Your task to perform on an android device: see tabs open on other devices in the chrome app Image 0: 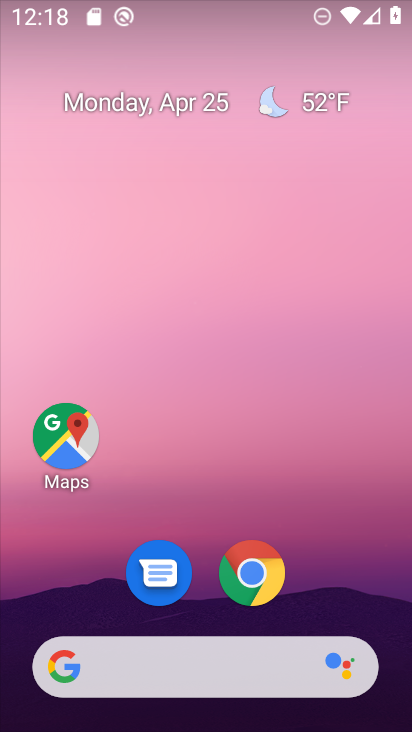
Step 0: click (253, 572)
Your task to perform on an android device: see tabs open on other devices in the chrome app Image 1: 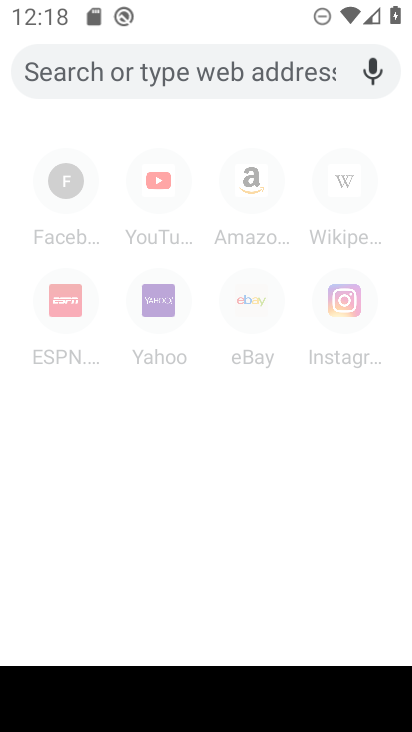
Step 1: click (245, 516)
Your task to perform on an android device: see tabs open on other devices in the chrome app Image 2: 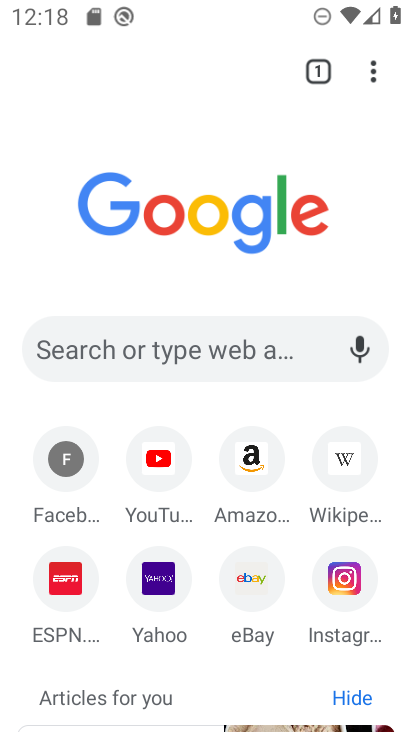
Step 2: task complete